Your task to perform on an android device: Go to display settings Image 0: 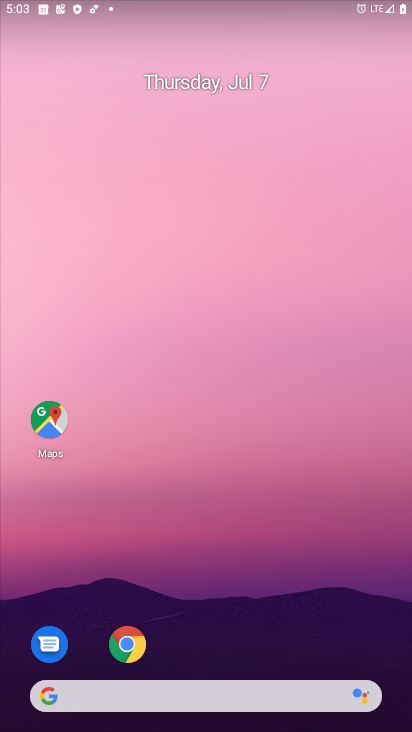
Step 0: drag from (249, 643) to (255, 176)
Your task to perform on an android device: Go to display settings Image 1: 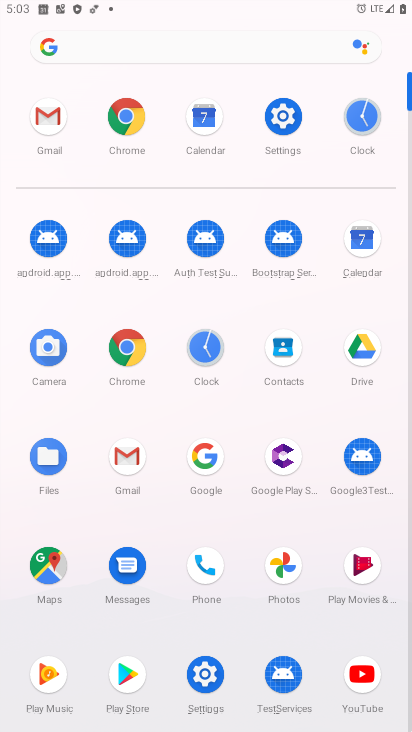
Step 1: click (204, 673)
Your task to perform on an android device: Go to display settings Image 2: 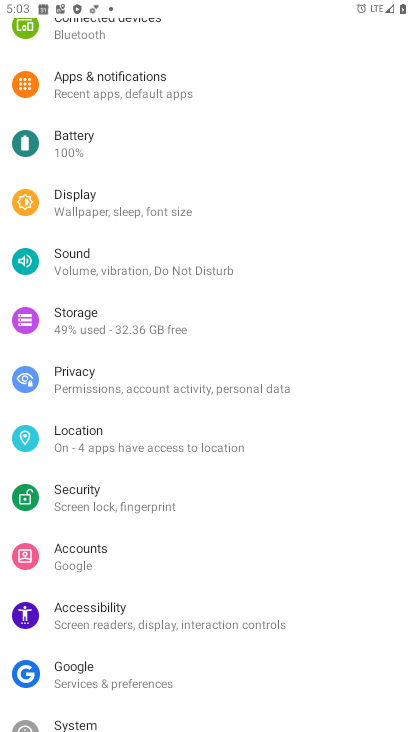
Step 2: click (113, 215)
Your task to perform on an android device: Go to display settings Image 3: 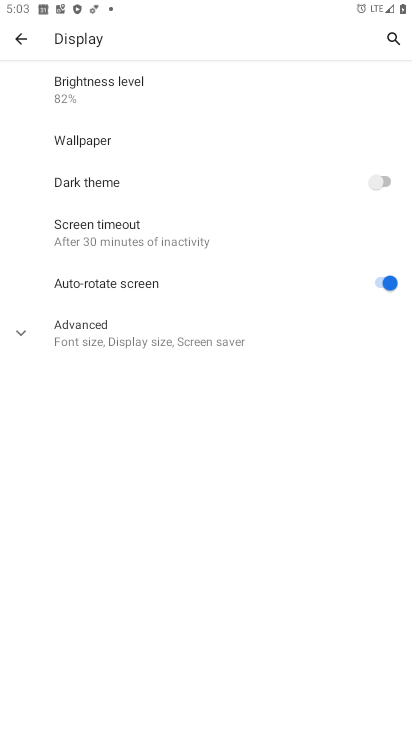
Step 3: task complete